Your task to perform on an android device: turn off translation in the chrome app Image 0: 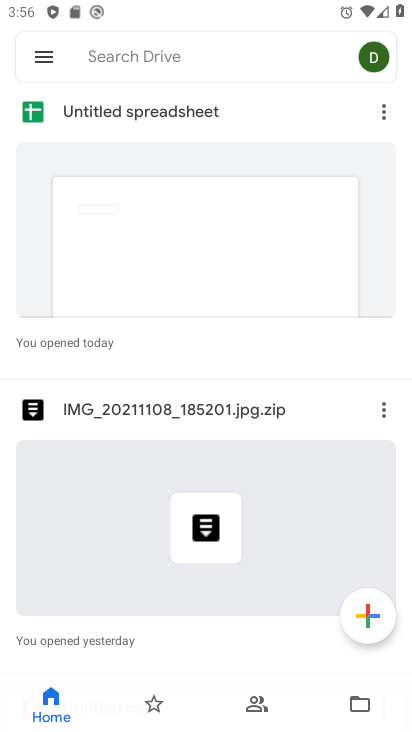
Step 0: press home button
Your task to perform on an android device: turn off translation in the chrome app Image 1: 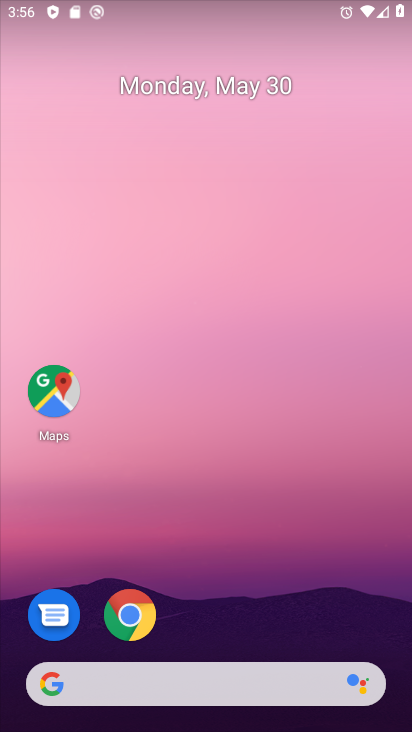
Step 1: click (132, 609)
Your task to perform on an android device: turn off translation in the chrome app Image 2: 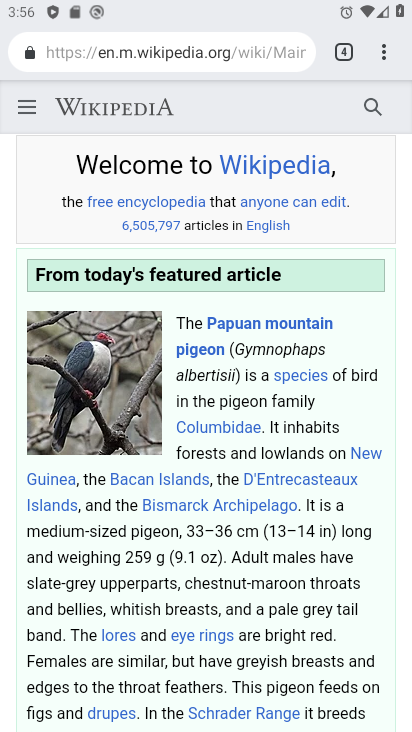
Step 2: click (385, 53)
Your task to perform on an android device: turn off translation in the chrome app Image 3: 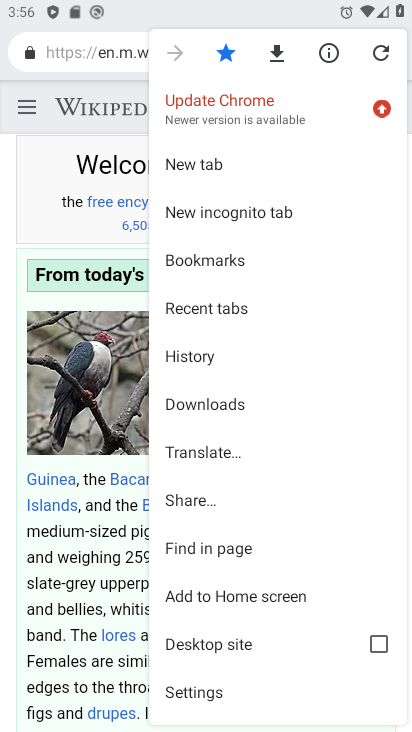
Step 3: click (230, 684)
Your task to perform on an android device: turn off translation in the chrome app Image 4: 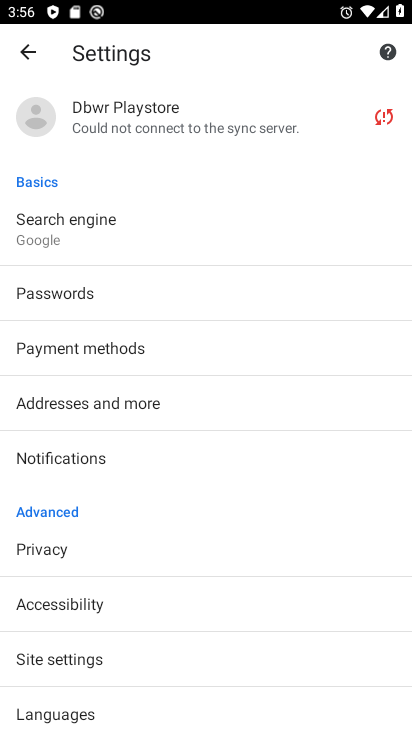
Step 4: click (206, 711)
Your task to perform on an android device: turn off translation in the chrome app Image 5: 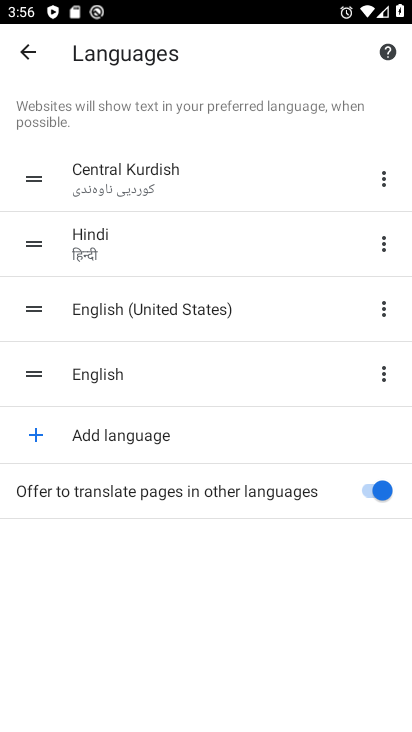
Step 5: click (379, 483)
Your task to perform on an android device: turn off translation in the chrome app Image 6: 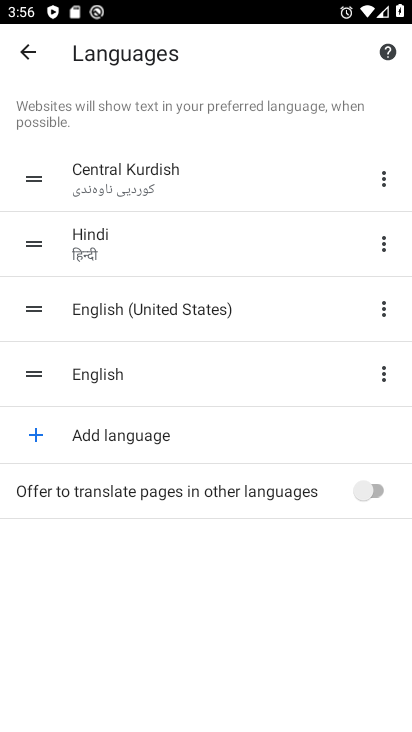
Step 6: task complete